Your task to perform on an android device: open app "Walmart Shopping & Grocery" (install if not already installed) and enter user name: "Hans@icloud.com" and password: "executing" Image 0: 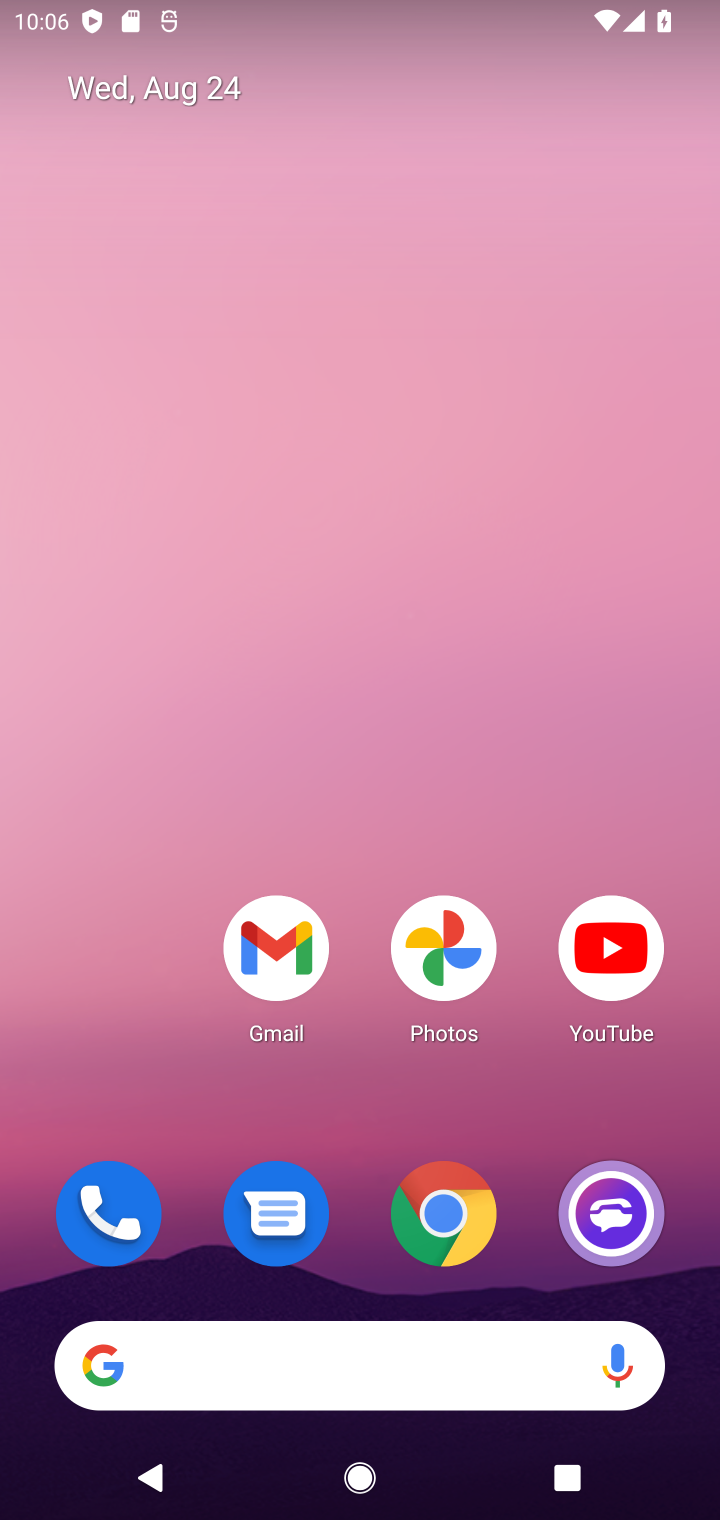
Step 0: drag from (303, 983) to (354, 212)
Your task to perform on an android device: open app "Walmart Shopping & Grocery" (install if not already installed) and enter user name: "Hans@icloud.com" and password: "executing" Image 1: 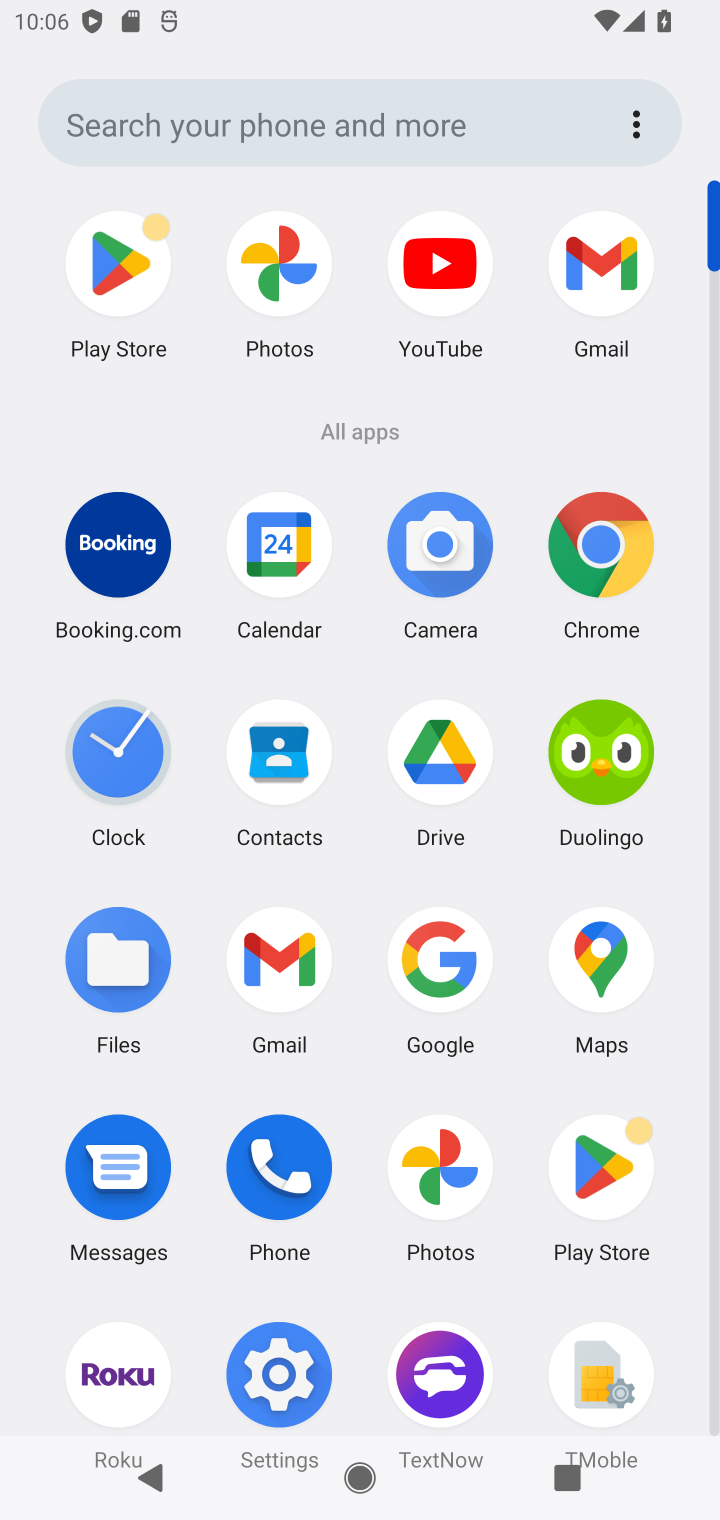
Step 1: click (103, 290)
Your task to perform on an android device: open app "Walmart Shopping & Grocery" (install if not already installed) and enter user name: "Hans@icloud.com" and password: "executing" Image 2: 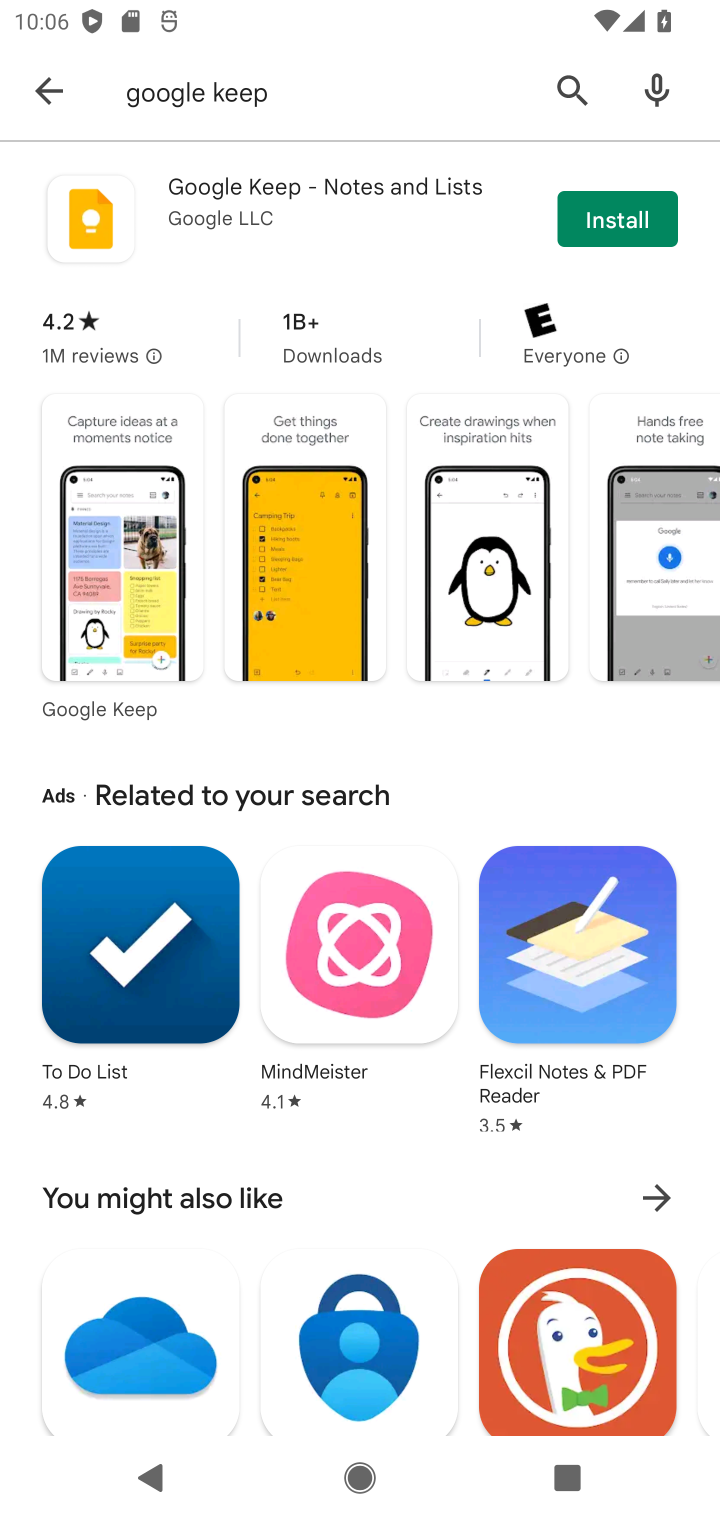
Step 2: click (244, 74)
Your task to perform on an android device: open app "Walmart Shopping & Grocery" (install if not already installed) and enter user name: "Hans@icloud.com" and password: "executing" Image 3: 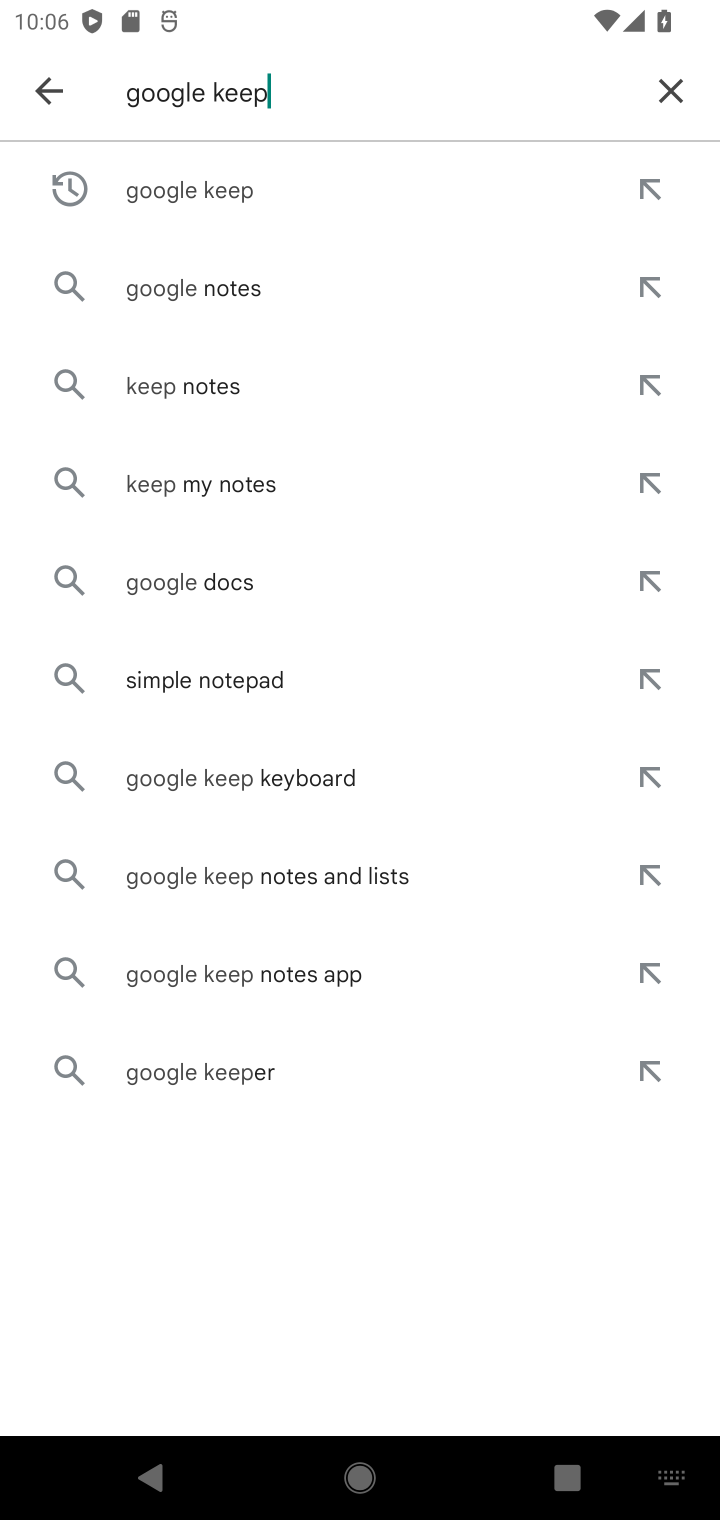
Step 3: click (663, 96)
Your task to perform on an android device: open app "Walmart Shopping & Grocery" (install if not already installed) and enter user name: "Hans@icloud.com" and password: "executing" Image 4: 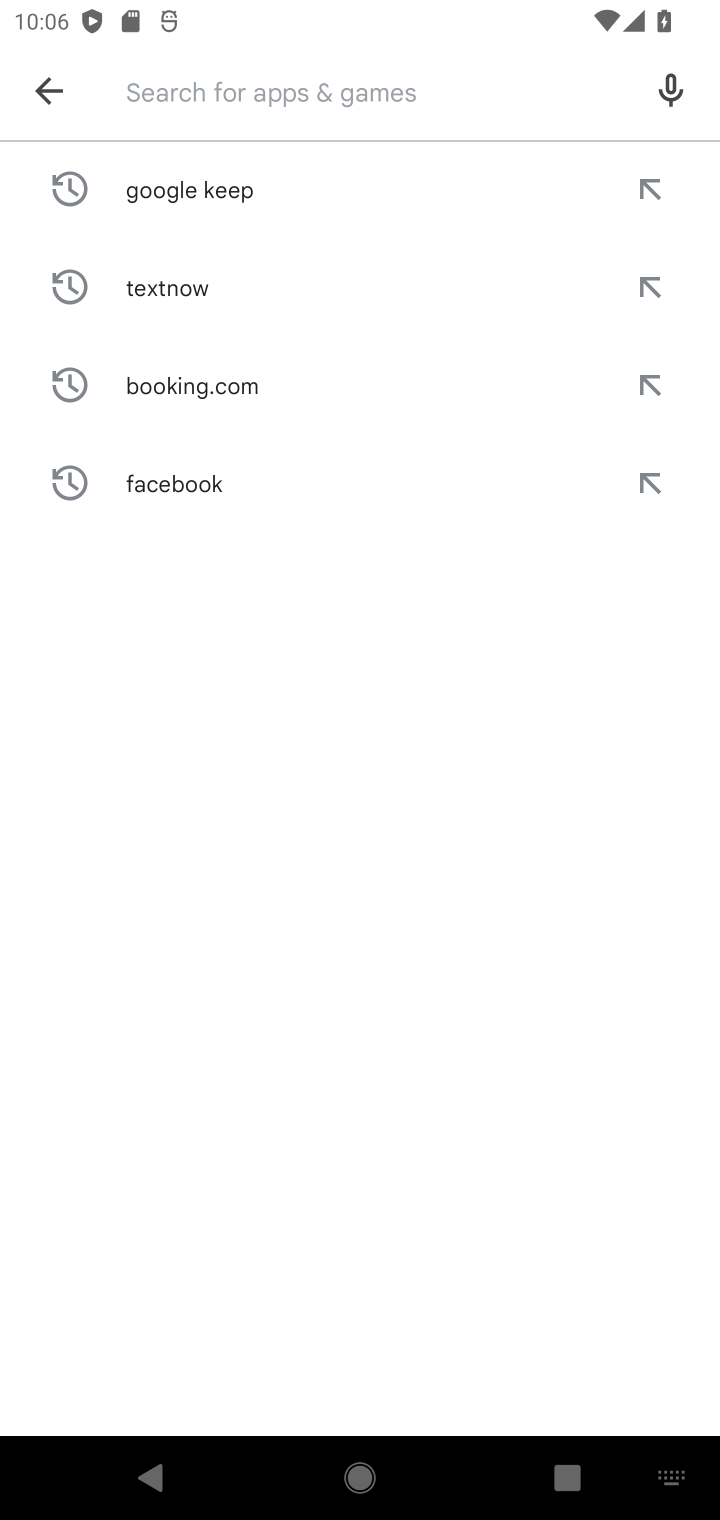
Step 4: type "walmart"
Your task to perform on an android device: open app "Walmart Shopping & Grocery" (install if not already installed) and enter user name: "Hans@icloud.com" and password: "executing" Image 5: 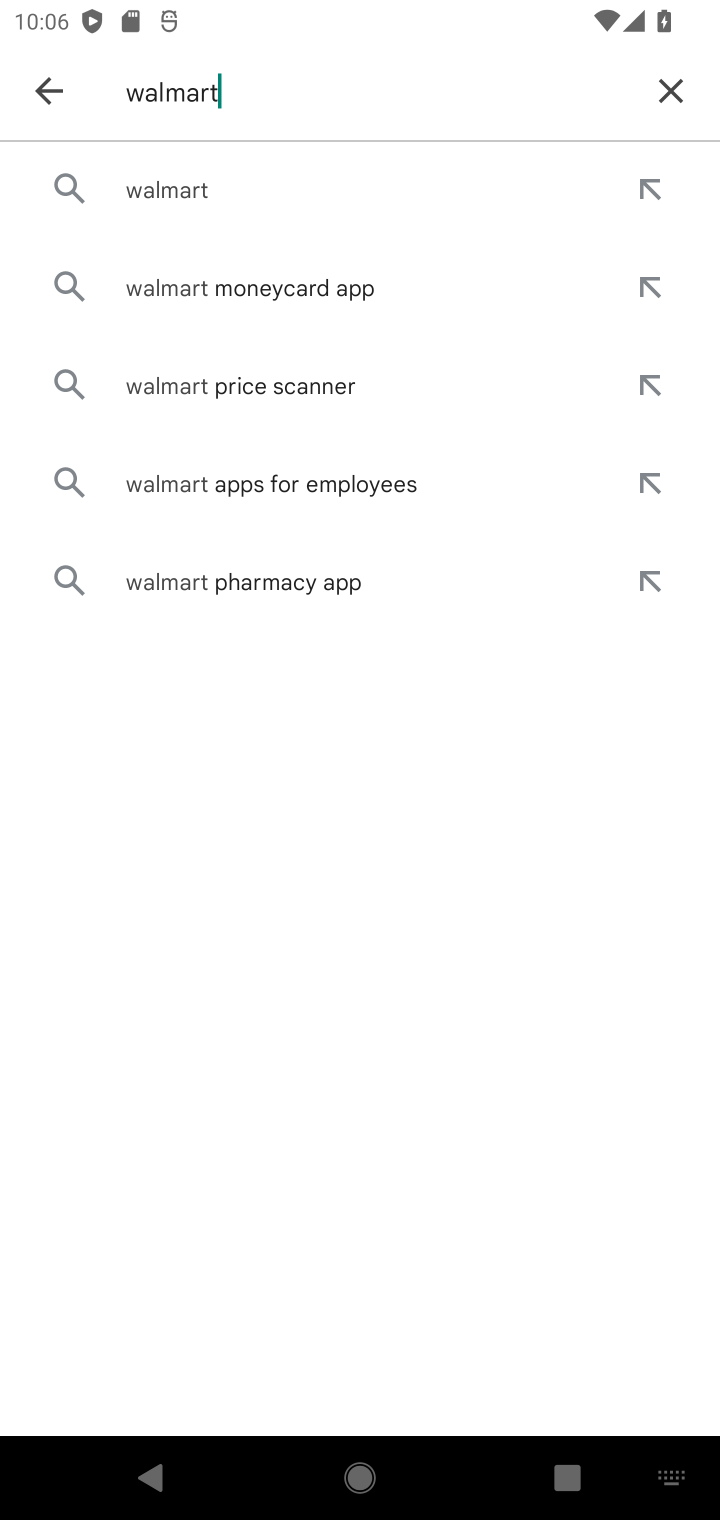
Step 5: click (205, 199)
Your task to perform on an android device: open app "Walmart Shopping & Grocery" (install if not already installed) and enter user name: "Hans@icloud.com" and password: "executing" Image 6: 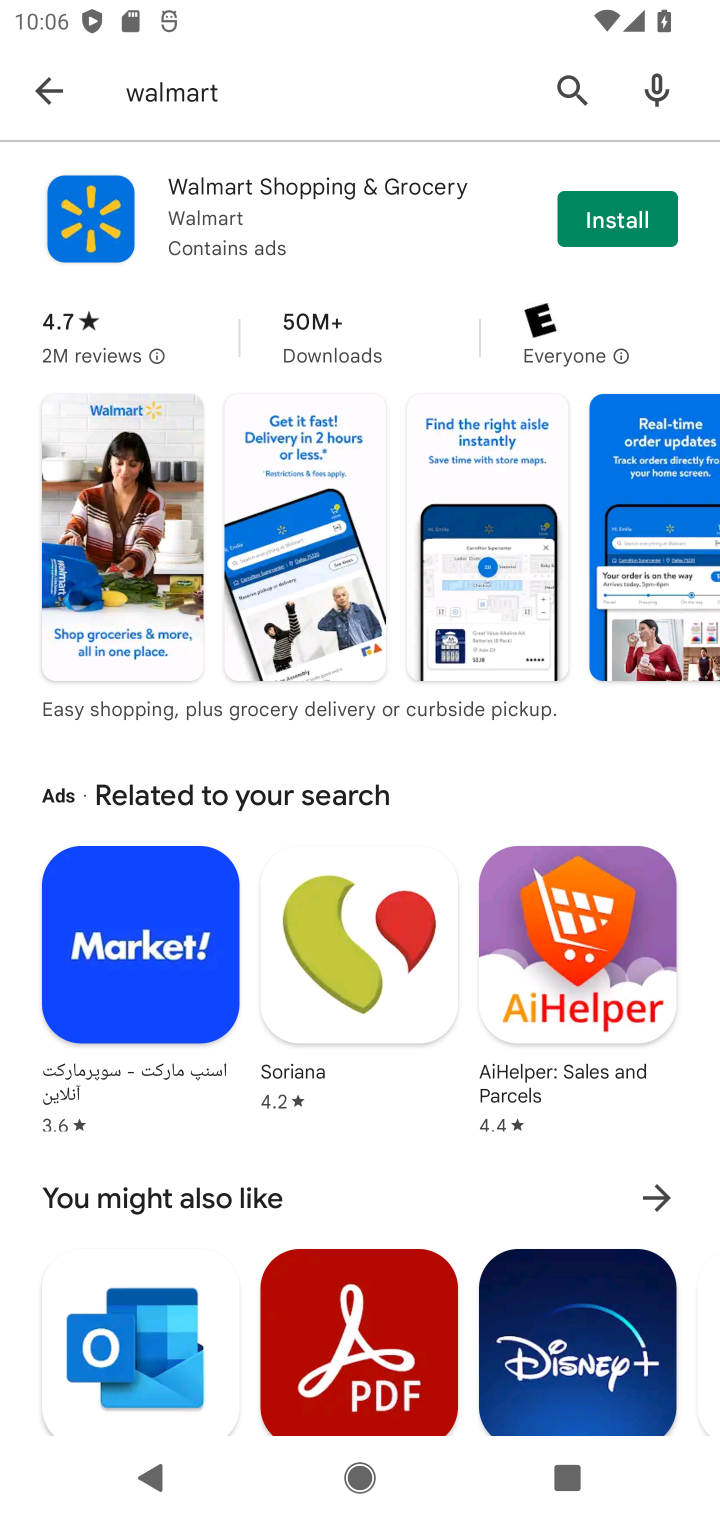
Step 6: click (609, 224)
Your task to perform on an android device: open app "Walmart Shopping & Grocery" (install if not already installed) and enter user name: "Hans@icloud.com" and password: "executing" Image 7: 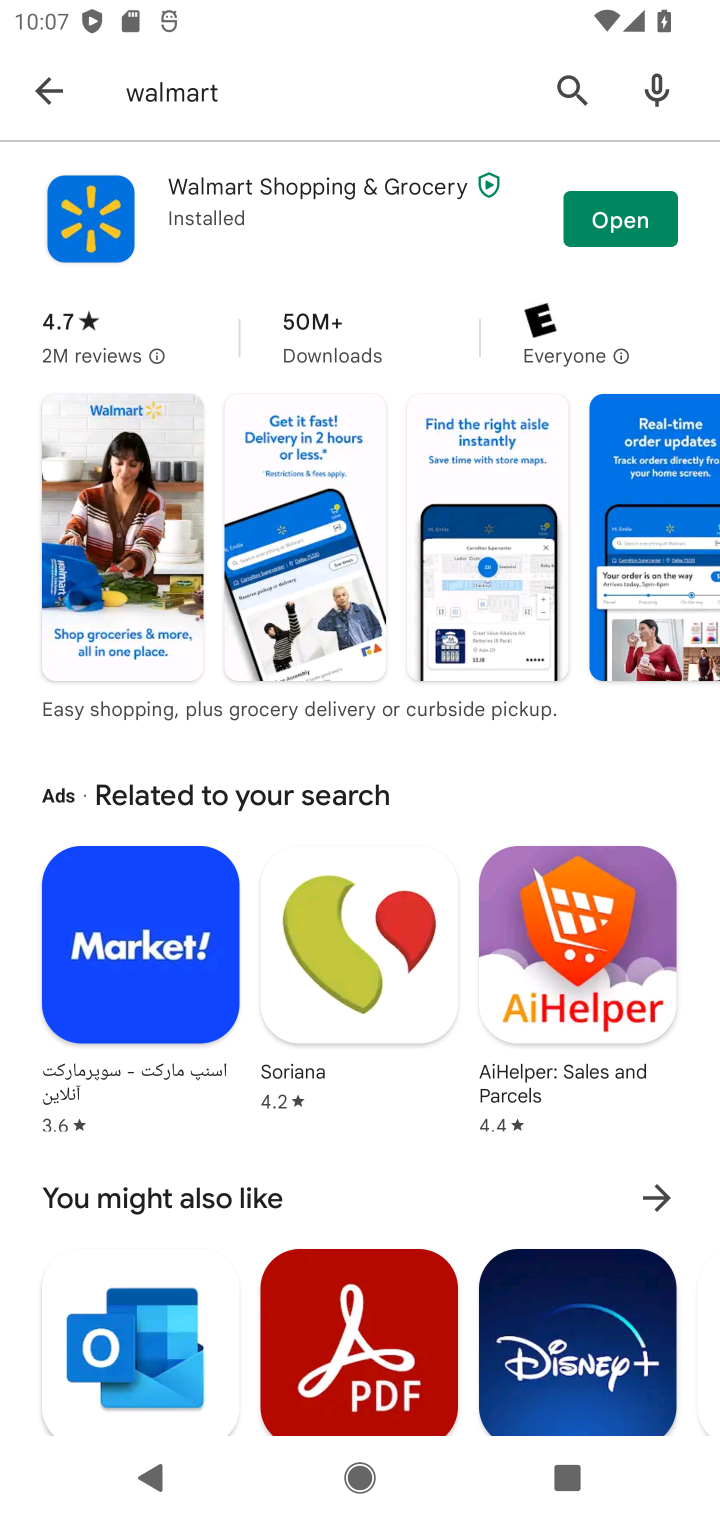
Step 7: click (604, 236)
Your task to perform on an android device: open app "Walmart Shopping & Grocery" (install if not already installed) and enter user name: "Hans@icloud.com" and password: "executing" Image 8: 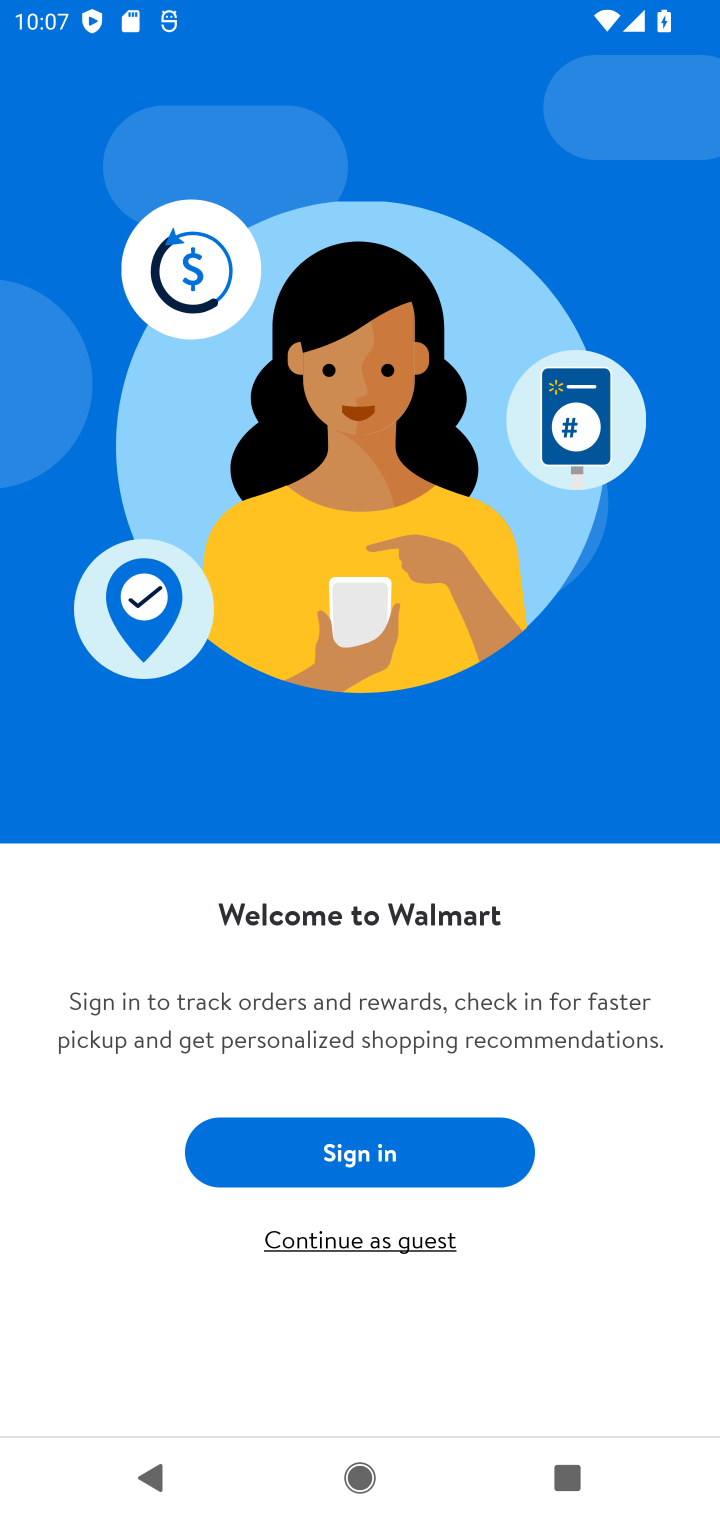
Step 8: click (403, 1153)
Your task to perform on an android device: open app "Walmart Shopping & Grocery" (install if not already installed) and enter user name: "Hans@icloud.com" and password: "executing" Image 9: 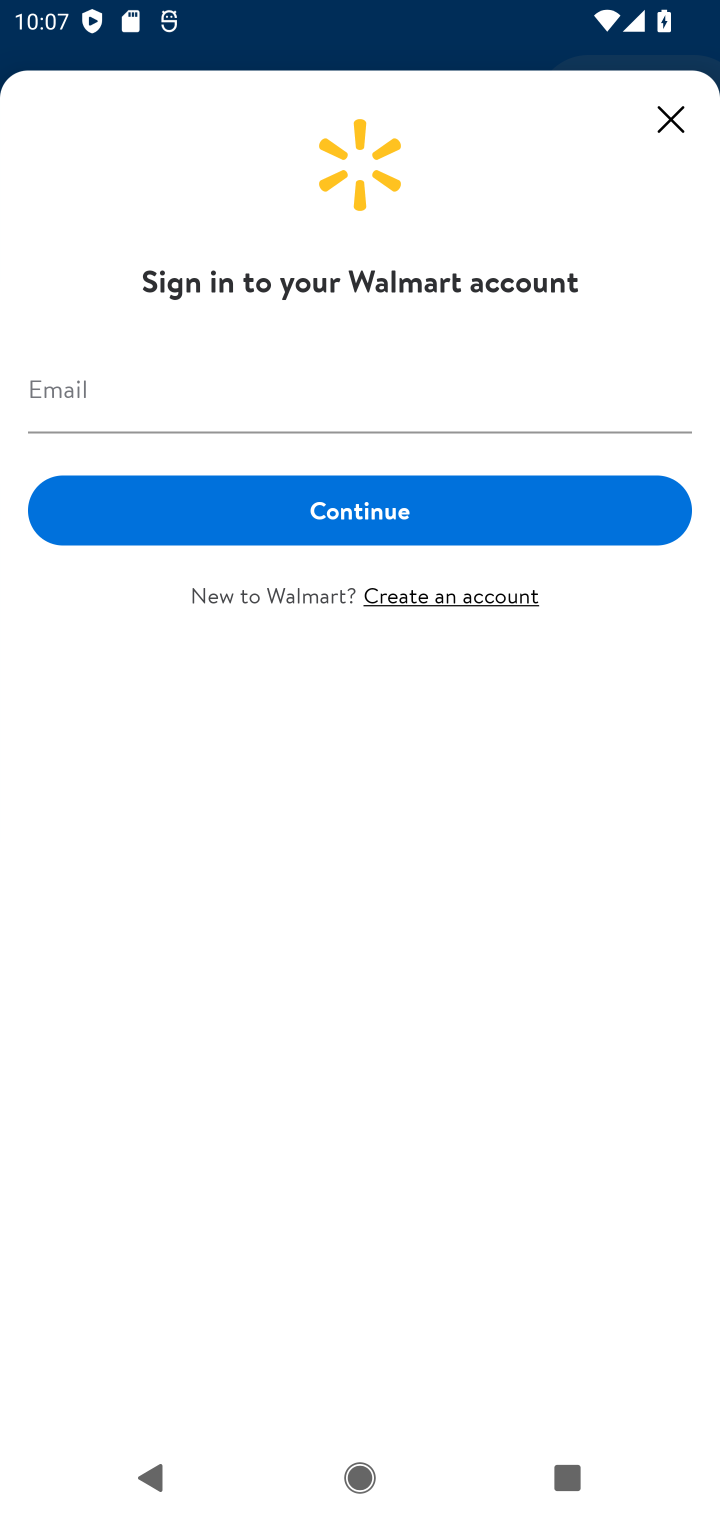
Step 9: click (280, 378)
Your task to perform on an android device: open app "Walmart Shopping & Grocery" (install if not already installed) and enter user name: "Hans@icloud.com" and password: "executing" Image 10: 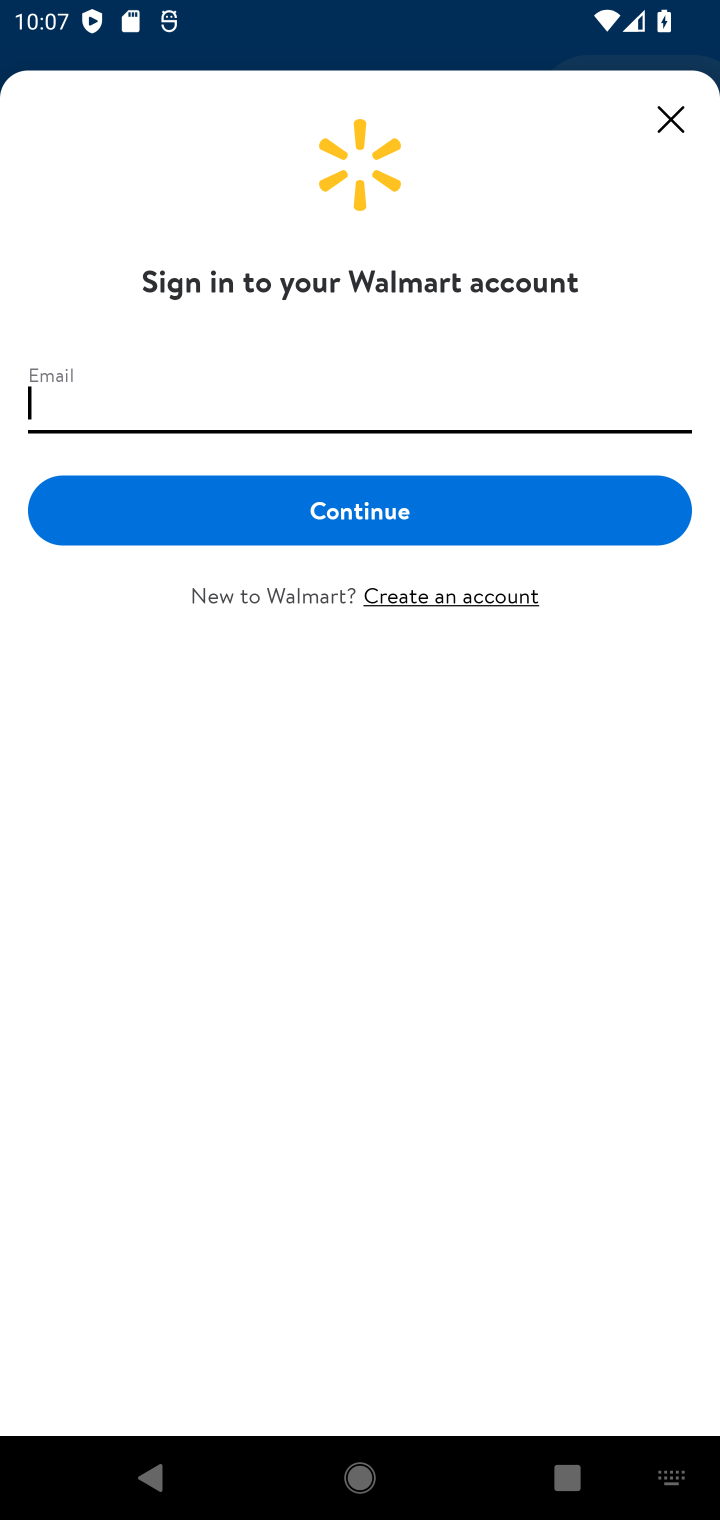
Step 10: type "Hans@icloud.com"
Your task to perform on an android device: open app "Walmart Shopping & Grocery" (install if not already installed) and enter user name: "Hans@icloud.com" and password: "executing" Image 11: 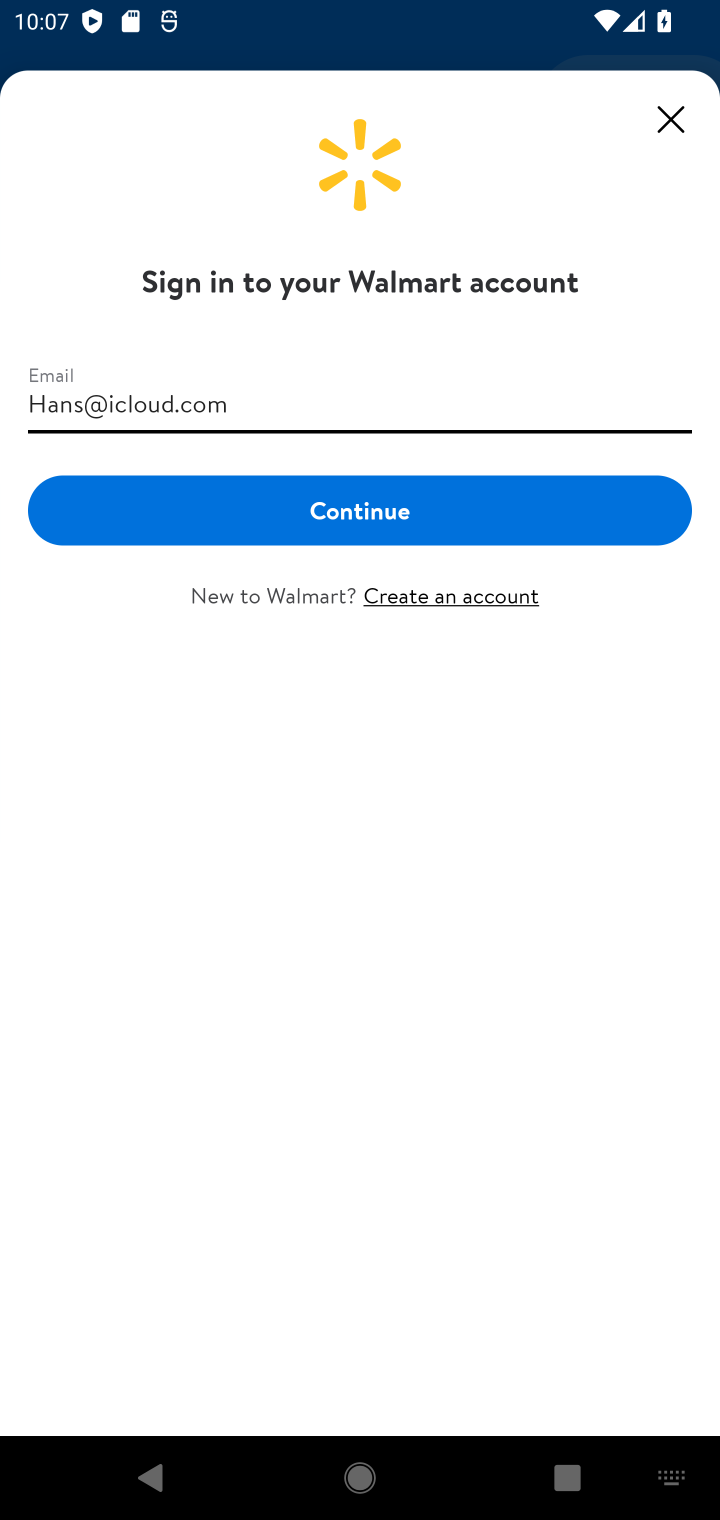
Step 11: click (384, 509)
Your task to perform on an android device: open app "Walmart Shopping & Grocery" (install if not already installed) and enter user name: "Hans@icloud.com" and password: "executing" Image 12: 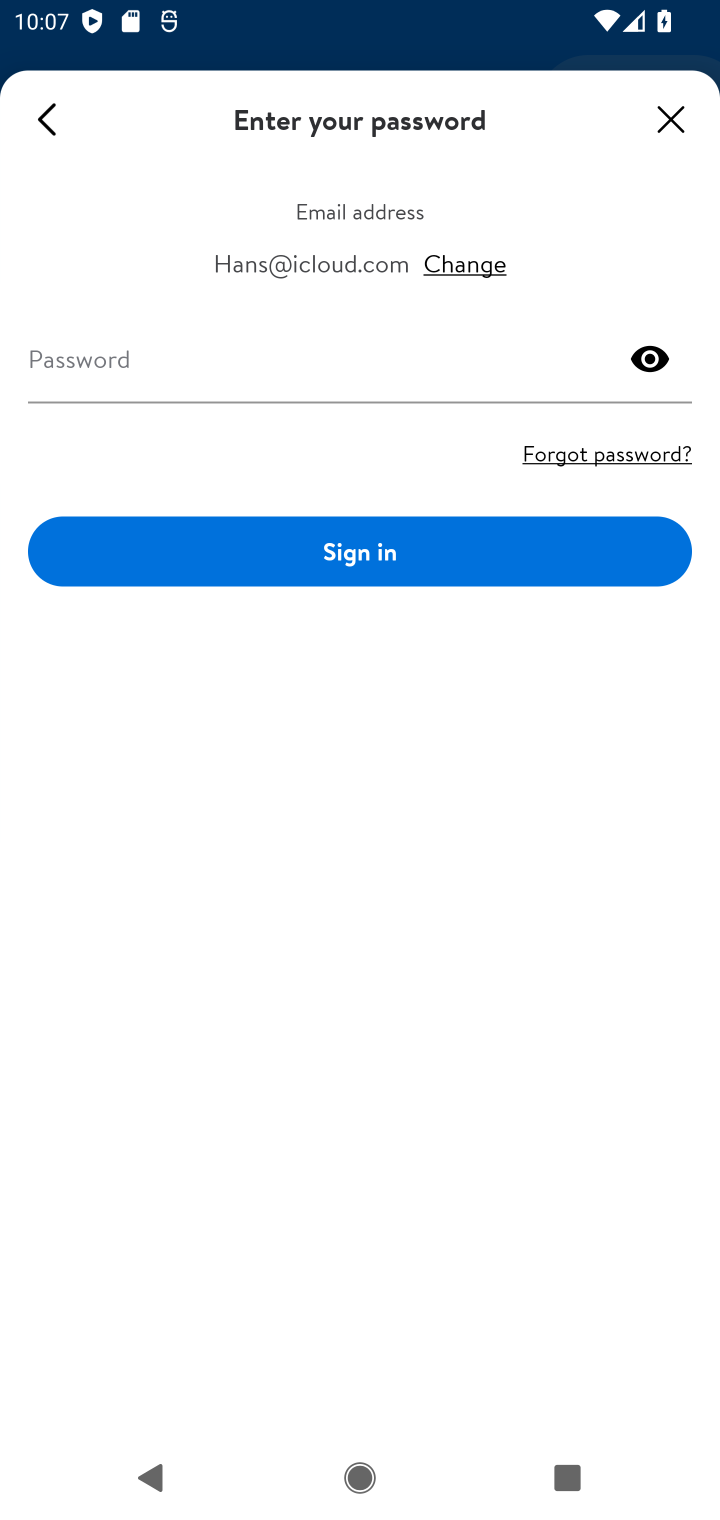
Step 12: click (251, 370)
Your task to perform on an android device: open app "Walmart Shopping & Grocery" (install if not already installed) and enter user name: "Hans@icloud.com" and password: "executing" Image 13: 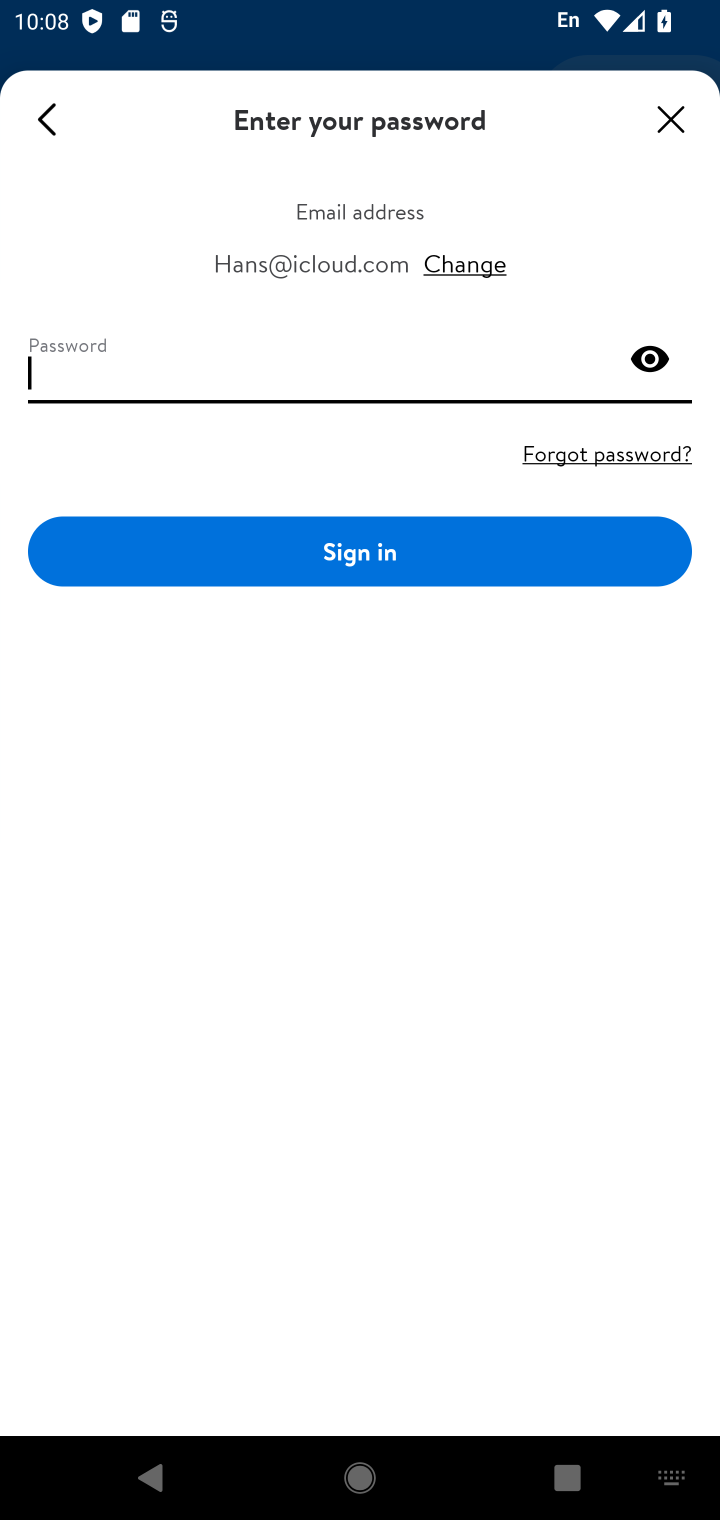
Step 13: type "executing"
Your task to perform on an android device: open app "Walmart Shopping & Grocery" (install if not already installed) and enter user name: "Hans@icloud.com" and password: "executing" Image 14: 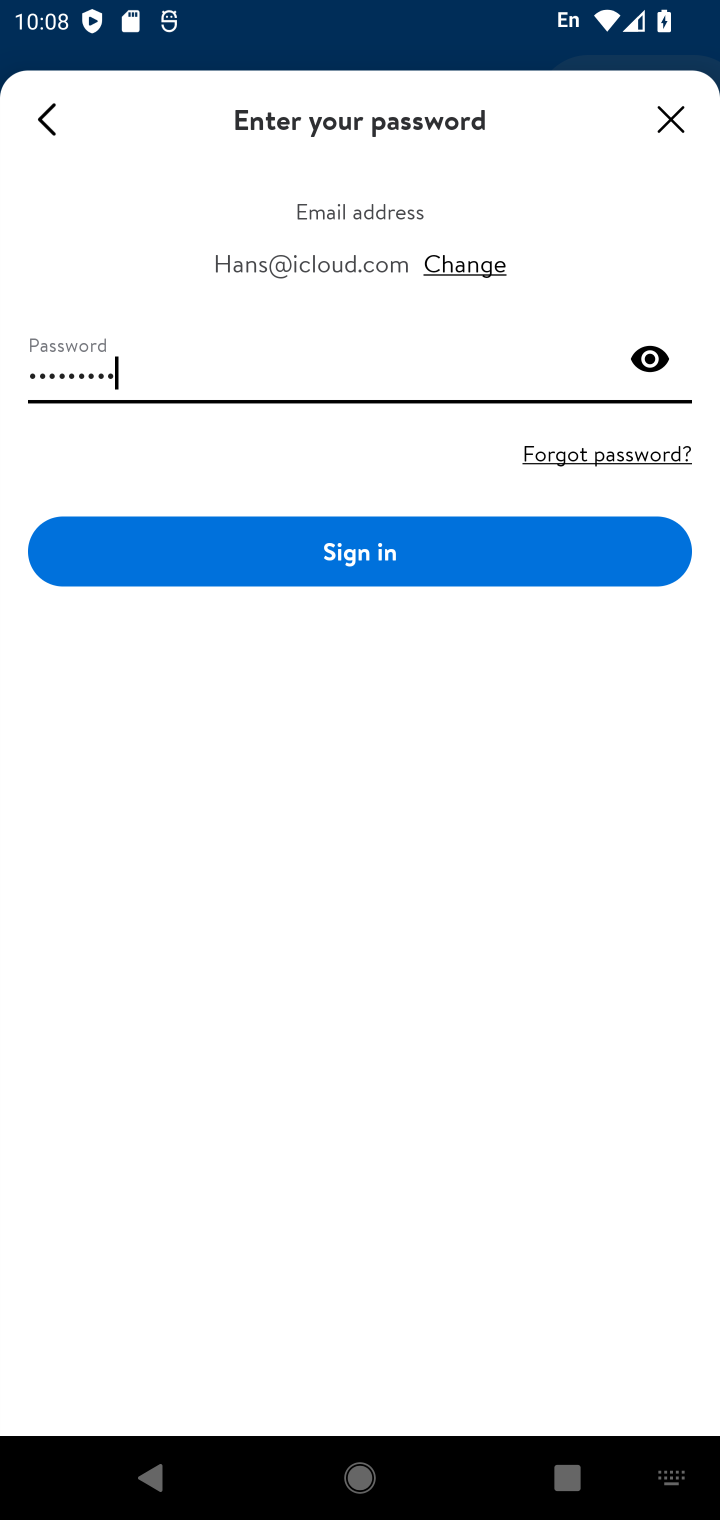
Step 14: click (372, 521)
Your task to perform on an android device: open app "Walmart Shopping & Grocery" (install if not already installed) and enter user name: "Hans@icloud.com" and password: "executing" Image 15: 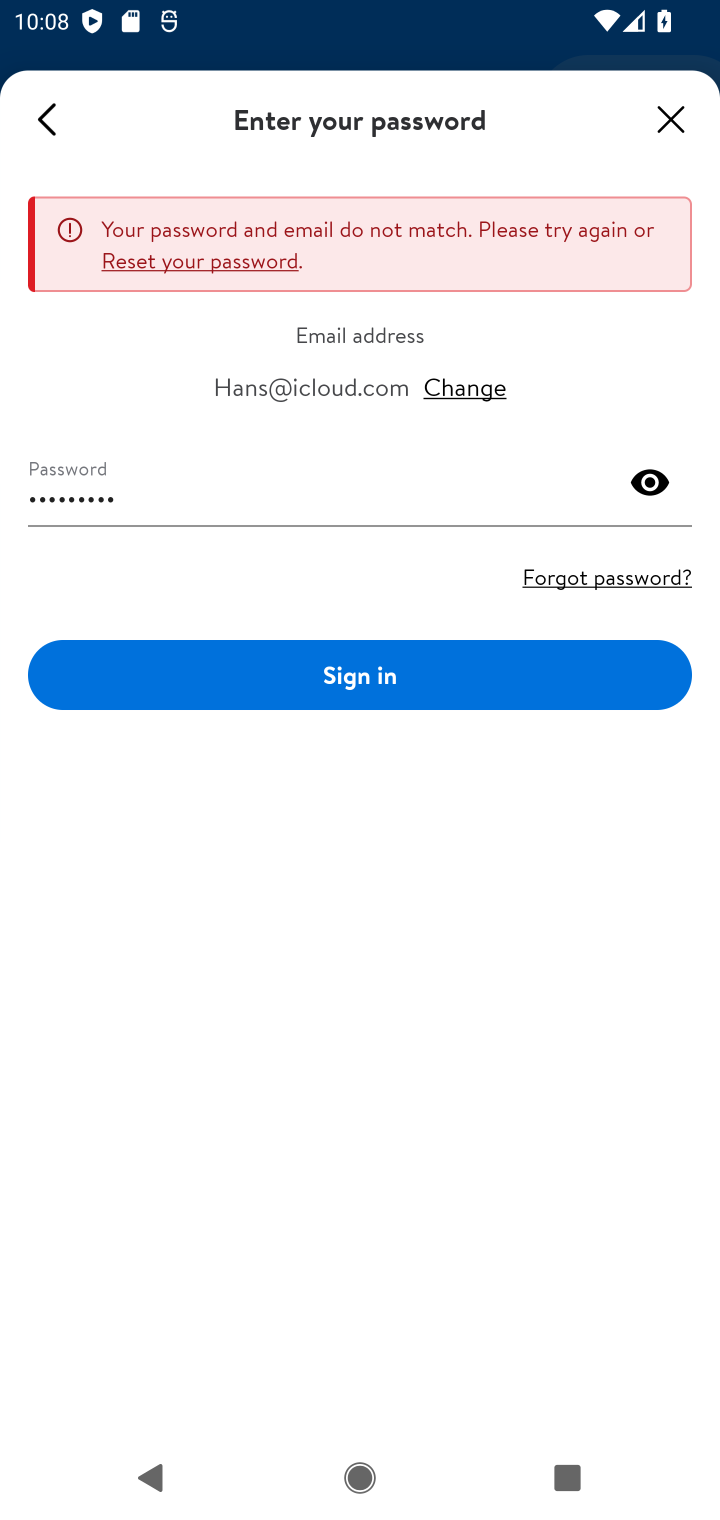
Step 15: task complete